Your task to perform on an android device: turn on javascript in the chrome app Image 0: 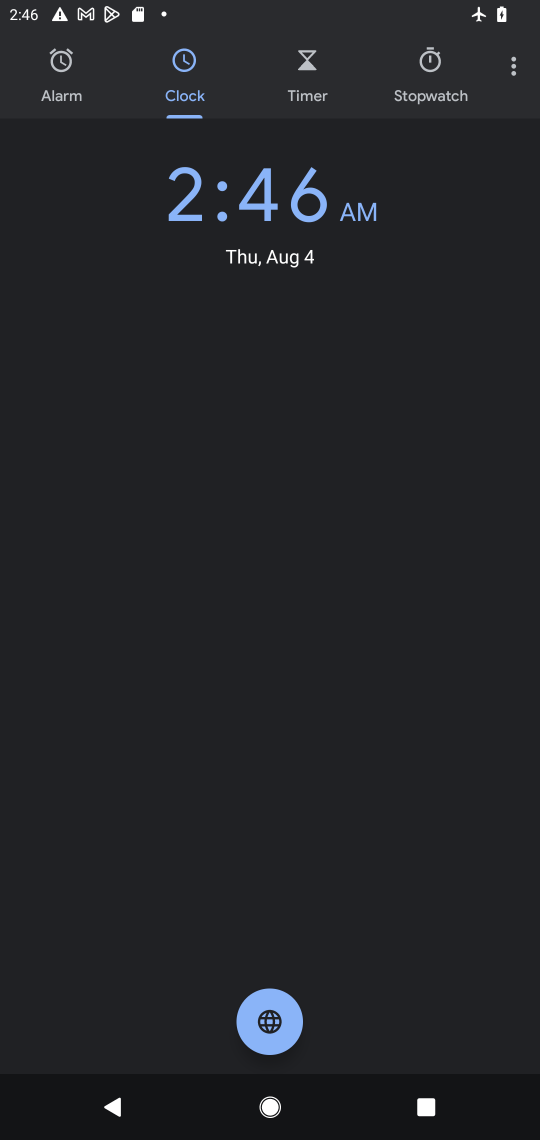
Step 0: press home button
Your task to perform on an android device: turn on javascript in the chrome app Image 1: 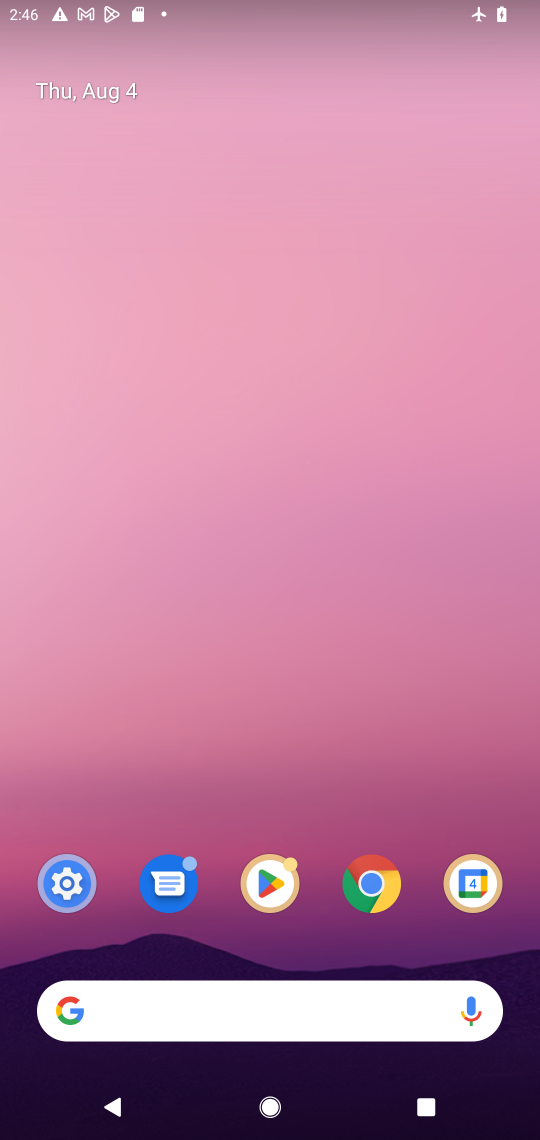
Step 1: click (373, 884)
Your task to perform on an android device: turn on javascript in the chrome app Image 2: 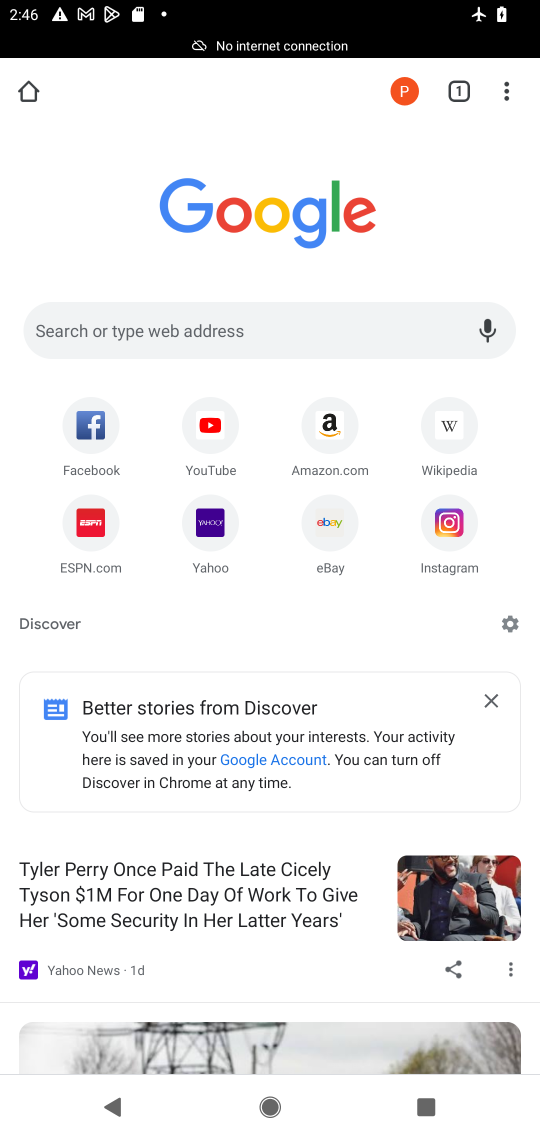
Step 2: click (507, 94)
Your task to perform on an android device: turn on javascript in the chrome app Image 3: 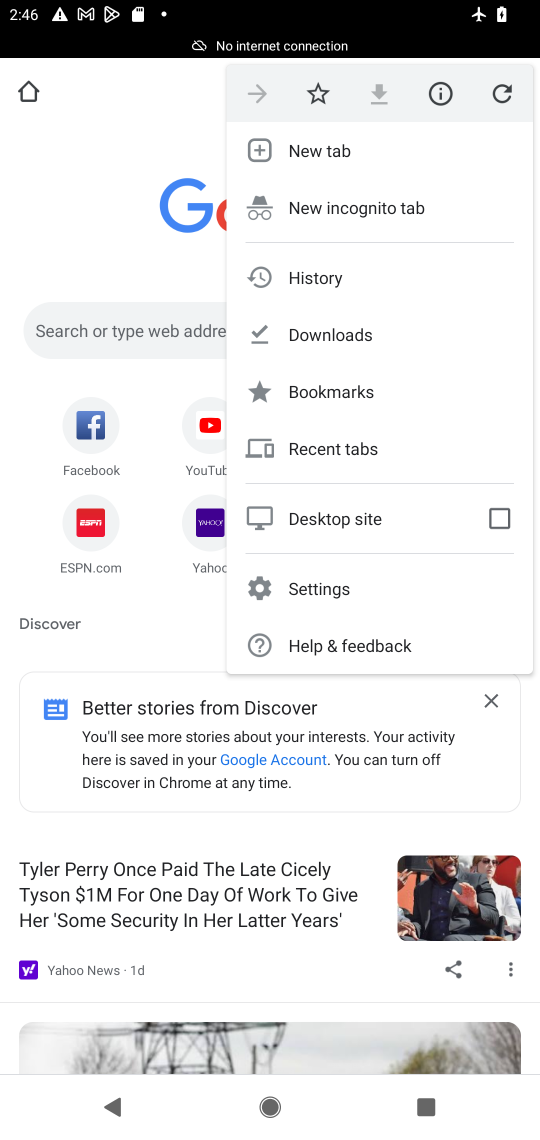
Step 3: click (314, 586)
Your task to perform on an android device: turn on javascript in the chrome app Image 4: 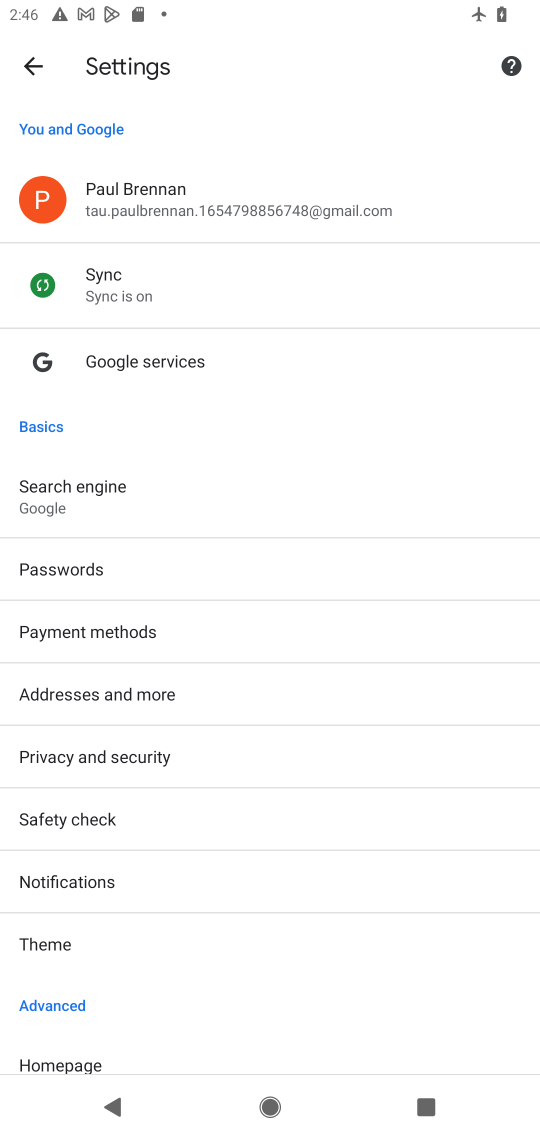
Step 4: drag from (158, 955) to (166, 429)
Your task to perform on an android device: turn on javascript in the chrome app Image 5: 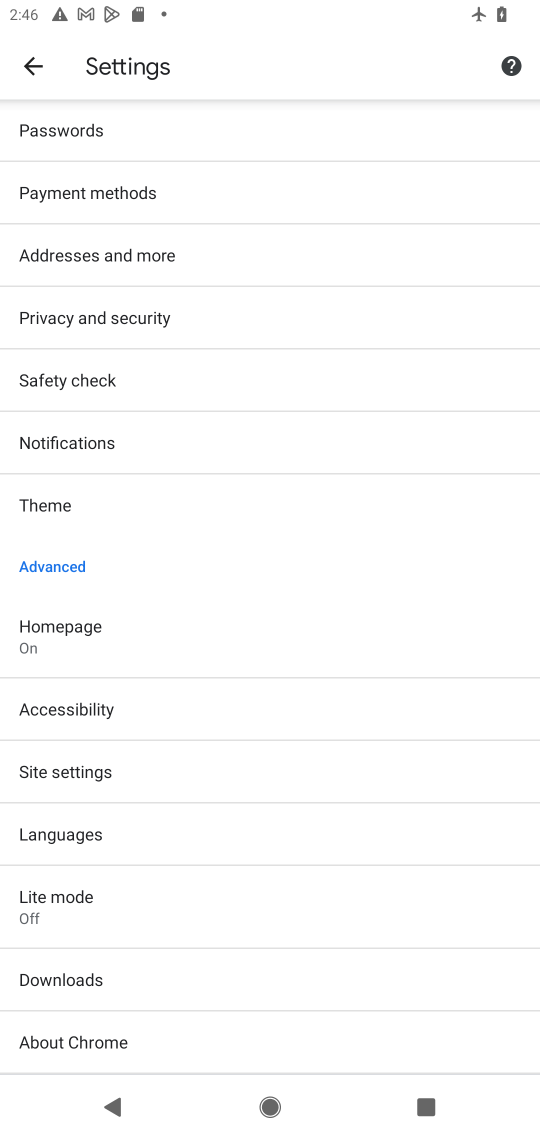
Step 5: click (48, 765)
Your task to perform on an android device: turn on javascript in the chrome app Image 6: 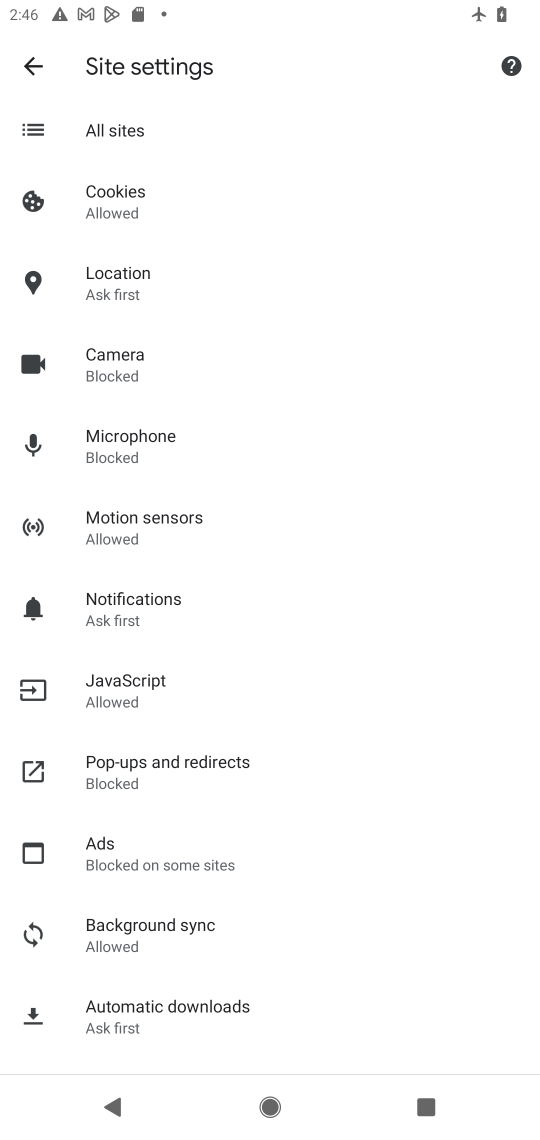
Step 6: click (122, 689)
Your task to perform on an android device: turn on javascript in the chrome app Image 7: 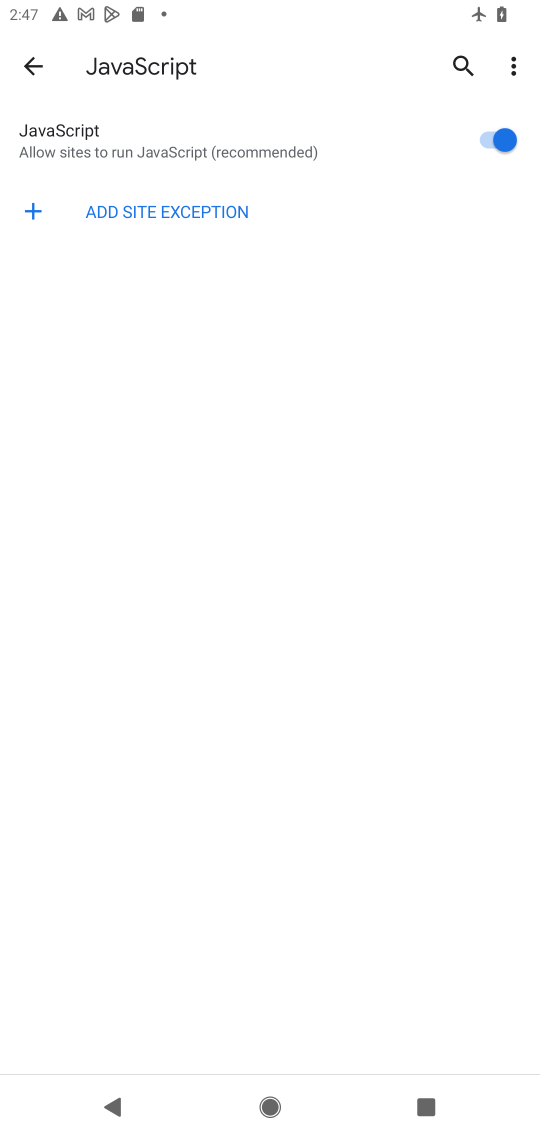
Step 7: task complete